Your task to perform on an android device: turn off priority inbox in the gmail app Image 0: 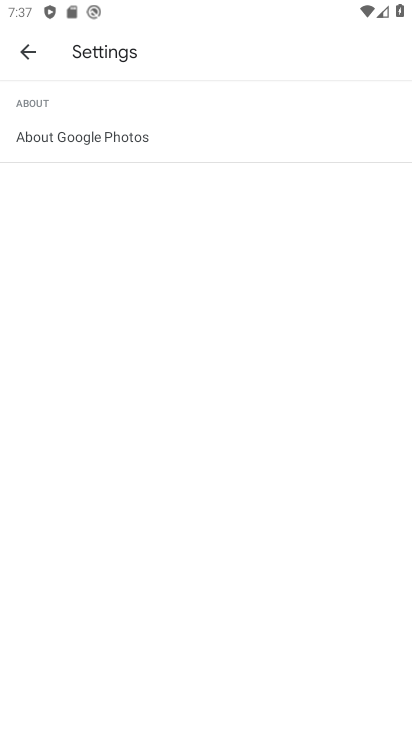
Step 0: press home button
Your task to perform on an android device: turn off priority inbox in the gmail app Image 1: 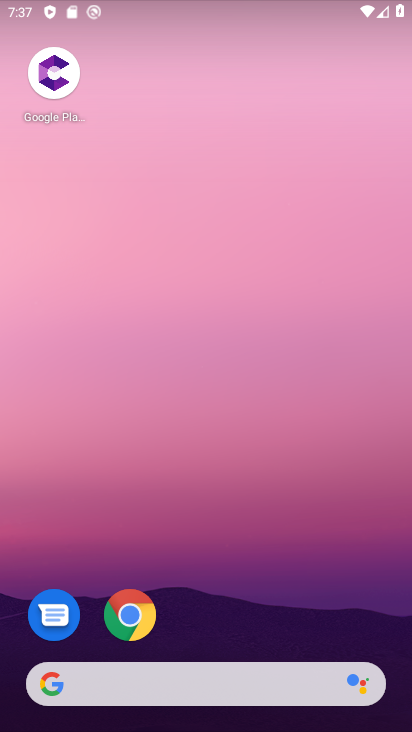
Step 1: drag from (122, 654) to (246, 148)
Your task to perform on an android device: turn off priority inbox in the gmail app Image 2: 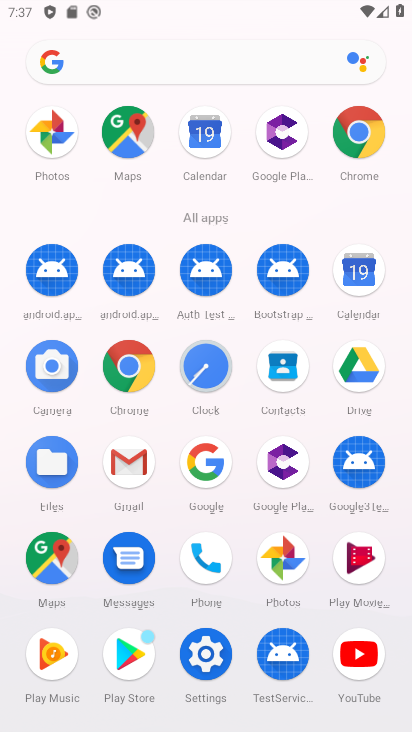
Step 2: click (125, 483)
Your task to perform on an android device: turn off priority inbox in the gmail app Image 3: 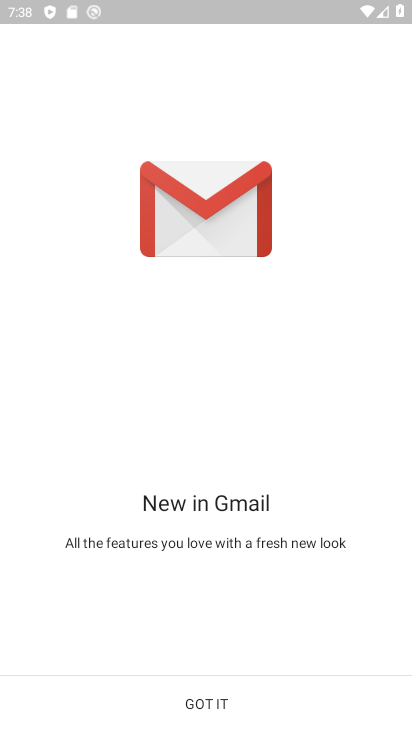
Step 3: click (213, 720)
Your task to perform on an android device: turn off priority inbox in the gmail app Image 4: 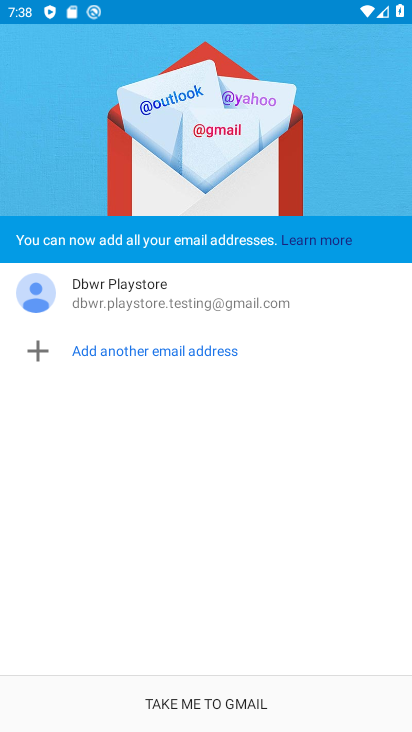
Step 4: click (215, 671)
Your task to perform on an android device: turn off priority inbox in the gmail app Image 5: 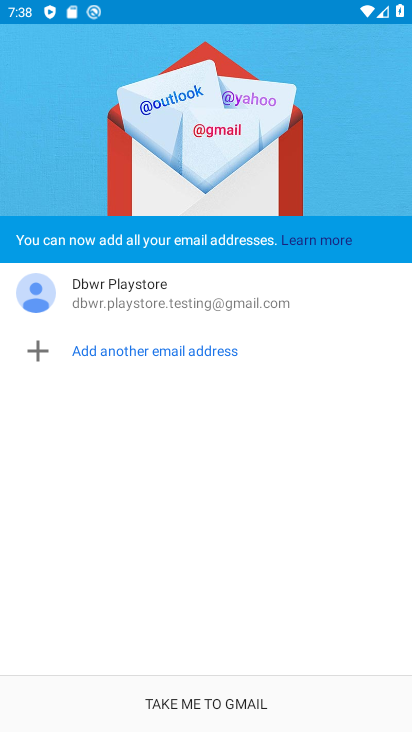
Step 5: click (232, 698)
Your task to perform on an android device: turn off priority inbox in the gmail app Image 6: 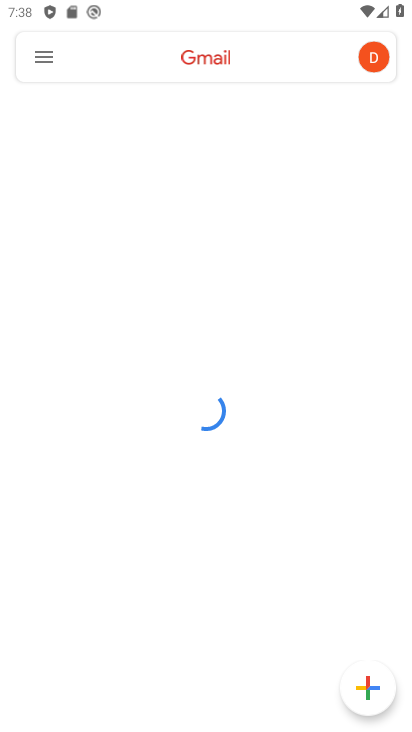
Step 6: click (231, 691)
Your task to perform on an android device: turn off priority inbox in the gmail app Image 7: 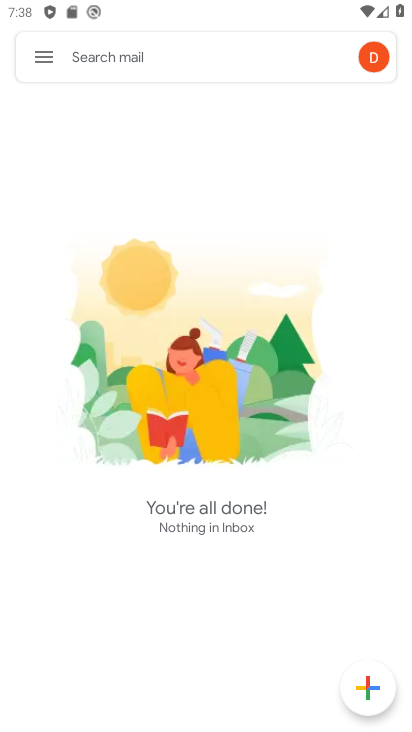
Step 7: click (53, 60)
Your task to perform on an android device: turn off priority inbox in the gmail app Image 8: 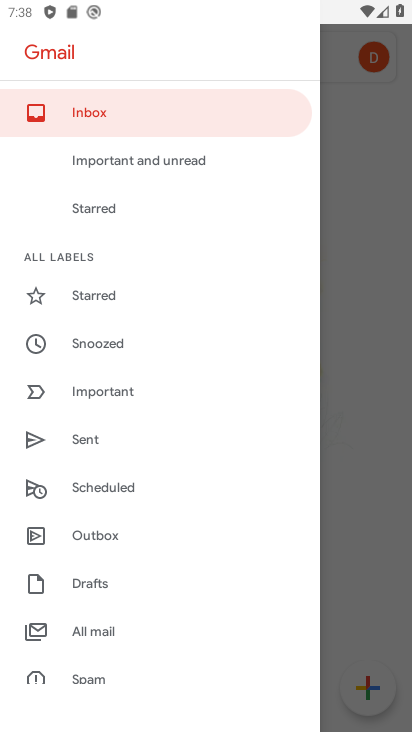
Step 8: drag from (145, 568) to (312, 105)
Your task to perform on an android device: turn off priority inbox in the gmail app Image 9: 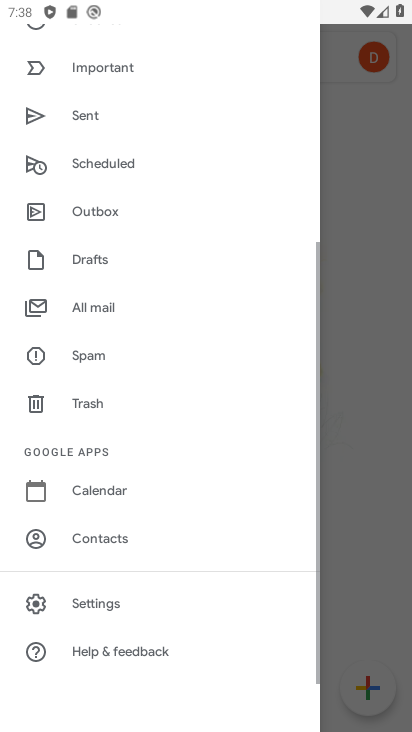
Step 9: click (124, 610)
Your task to perform on an android device: turn off priority inbox in the gmail app Image 10: 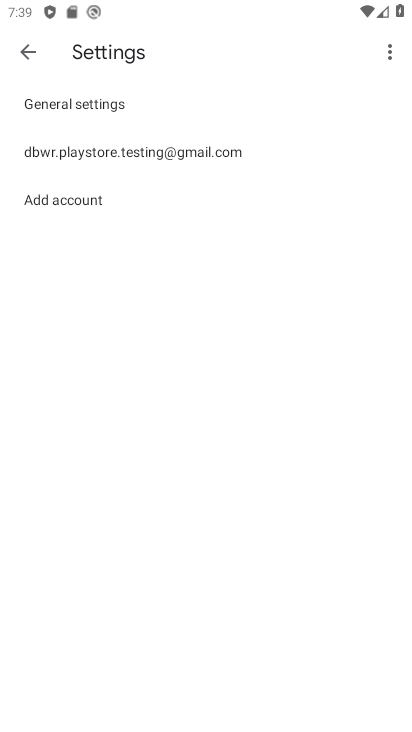
Step 10: click (115, 164)
Your task to perform on an android device: turn off priority inbox in the gmail app Image 11: 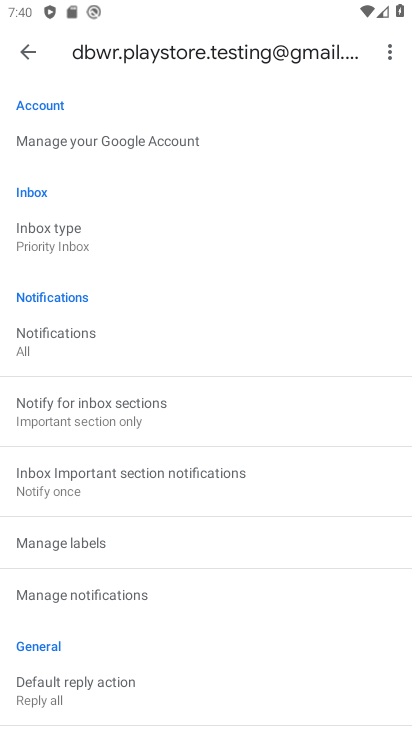
Step 11: click (76, 238)
Your task to perform on an android device: turn off priority inbox in the gmail app Image 12: 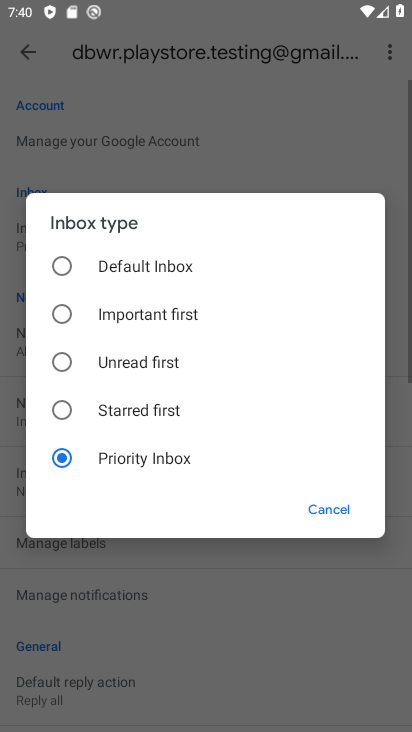
Step 12: click (108, 317)
Your task to perform on an android device: turn off priority inbox in the gmail app Image 13: 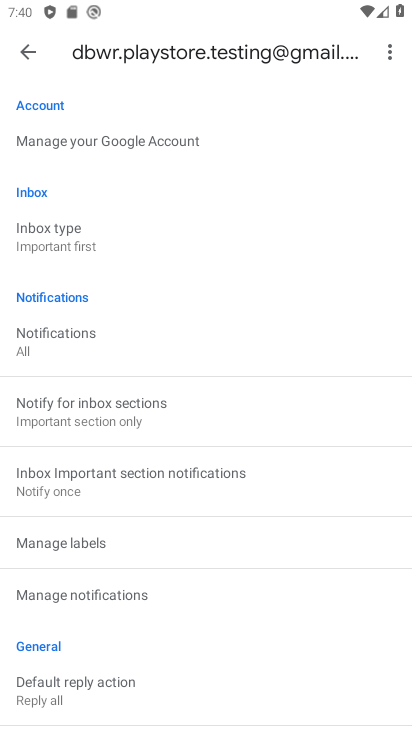
Step 13: task complete